Your task to perform on an android device: Open Amazon Image 0: 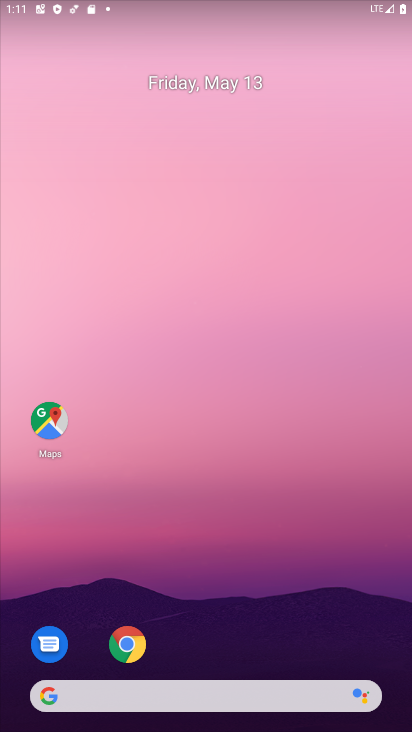
Step 0: drag from (390, 655) to (301, 78)
Your task to perform on an android device: Open Amazon Image 1: 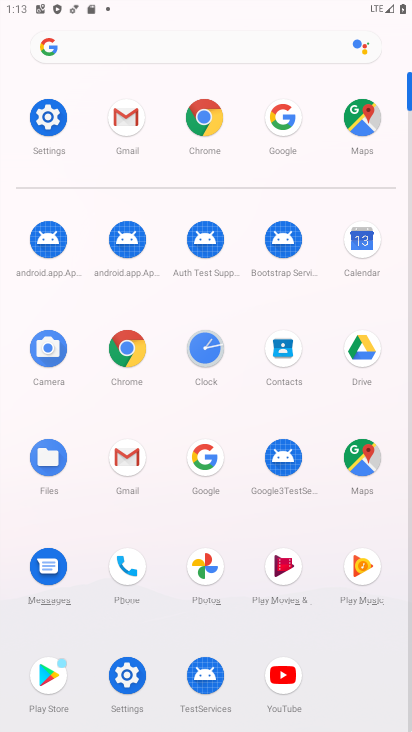
Step 1: click (119, 357)
Your task to perform on an android device: Open Amazon Image 2: 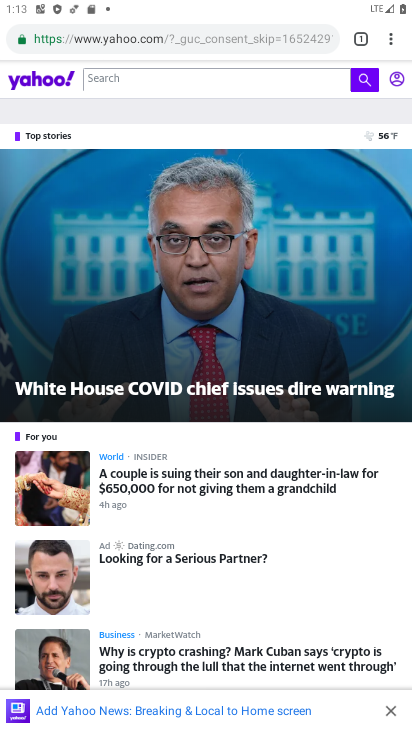
Step 2: press back button
Your task to perform on an android device: Open Amazon Image 3: 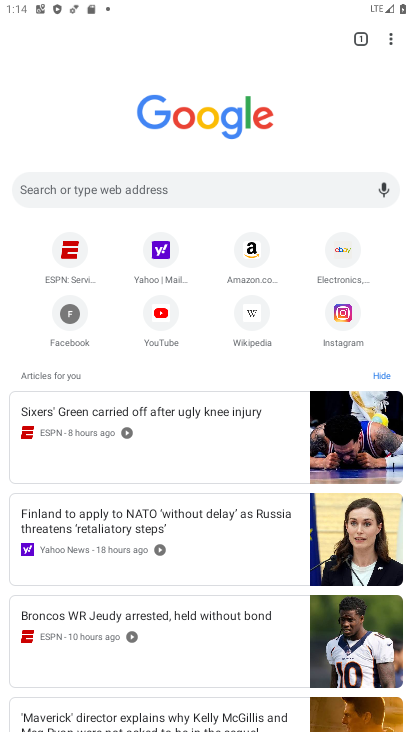
Step 3: click (236, 263)
Your task to perform on an android device: Open Amazon Image 4: 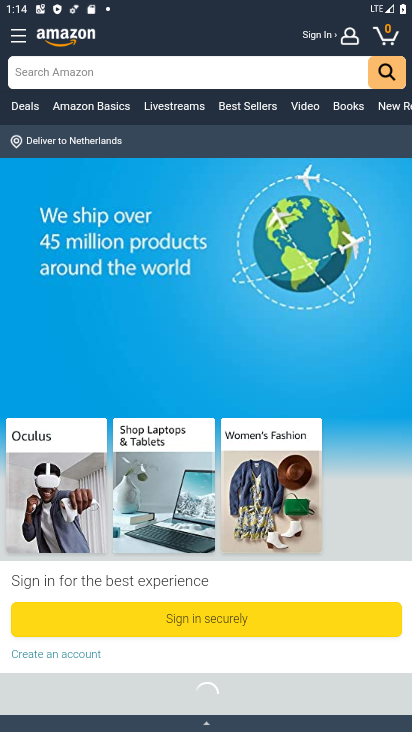
Step 4: task complete